Your task to perform on an android device: toggle notifications settings in the gmail app Image 0: 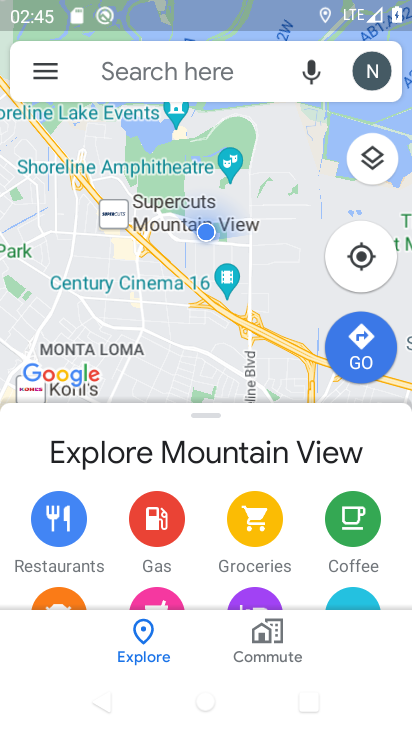
Step 0: press home button
Your task to perform on an android device: toggle notifications settings in the gmail app Image 1: 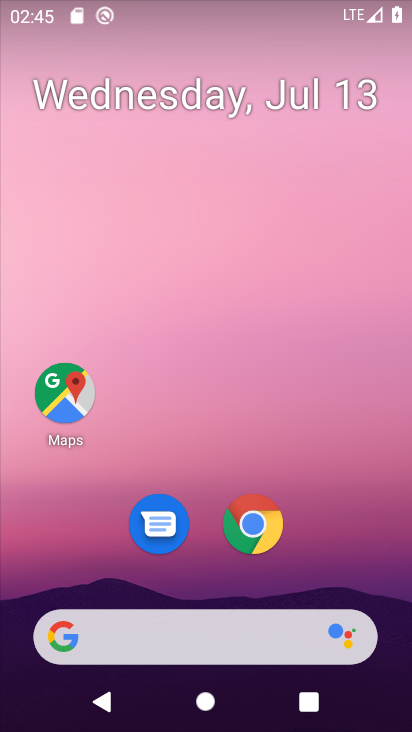
Step 1: drag from (352, 545) to (409, 111)
Your task to perform on an android device: toggle notifications settings in the gmail app Image 2: 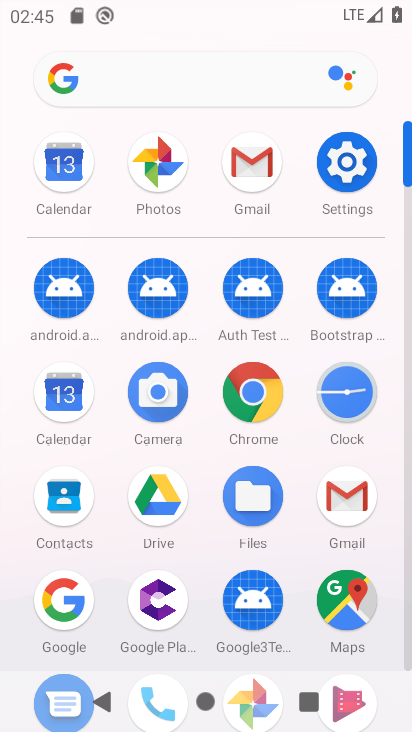
Step 2: click (253, 164)
Your task to perform on an android device: toggle notifications settings in the gmail app Image 3: 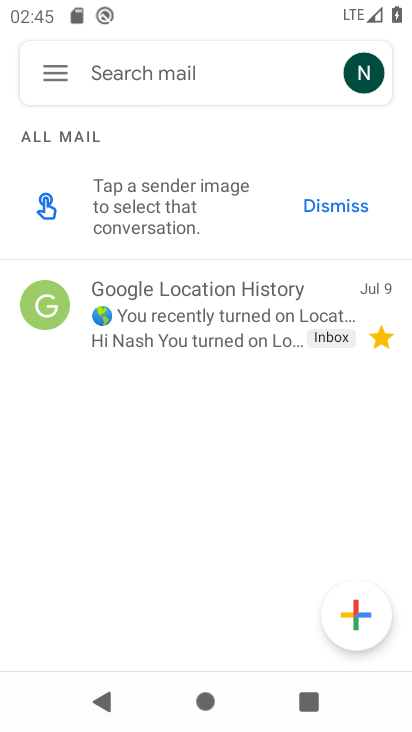
Step 3: click (59, 80)
Your task to perform on an android device: toggle notifications settings in the gmail app Image 4: 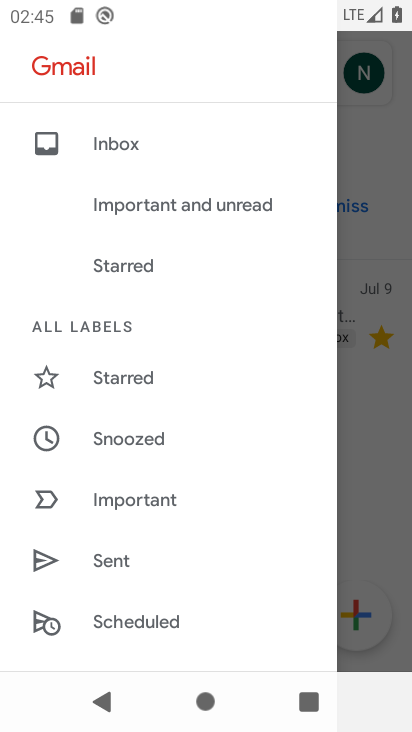
Step 4: drag from (163, 515) to (217, 0)
Your task to perform on an android device: toggle notifications settings in the gmail app Image 5: 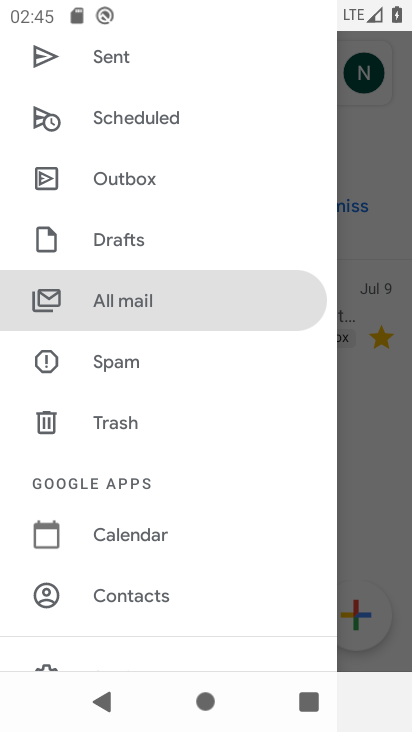
Step 5: drag from (194, 523) to (212, 245)
Your task to perform on an android device: toggle notifications settings in the gmail app Image 6: 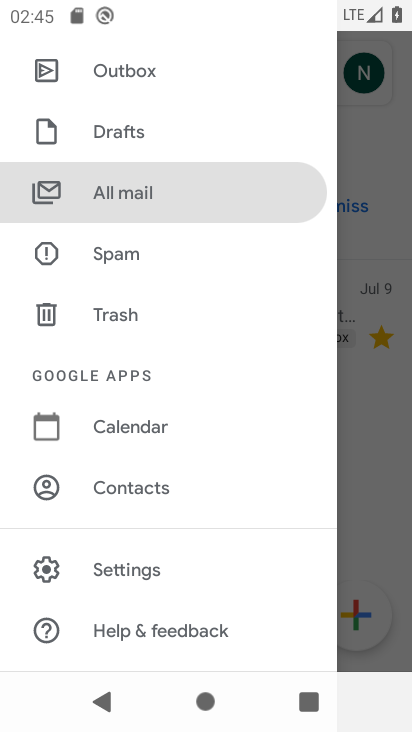
Step 6: click (147, 558)
Your task to perform on an android device: toggle notifications settings in the gmail app Image 7: 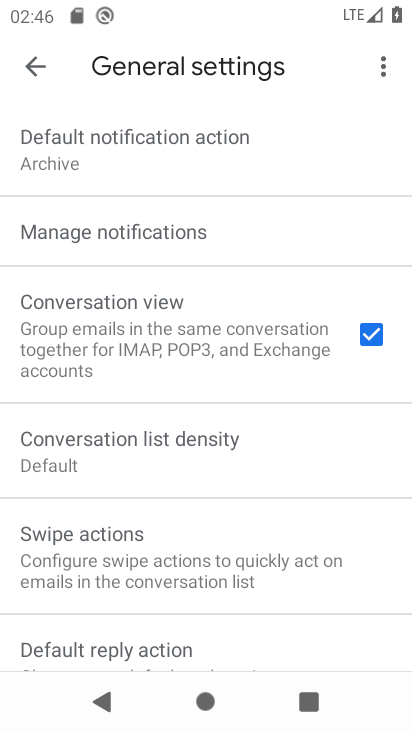
Step 7: drag from (210, 454) to (234, 242)
Your task to perform on an android device: toggle notifications settings in the gmail app Image 8: 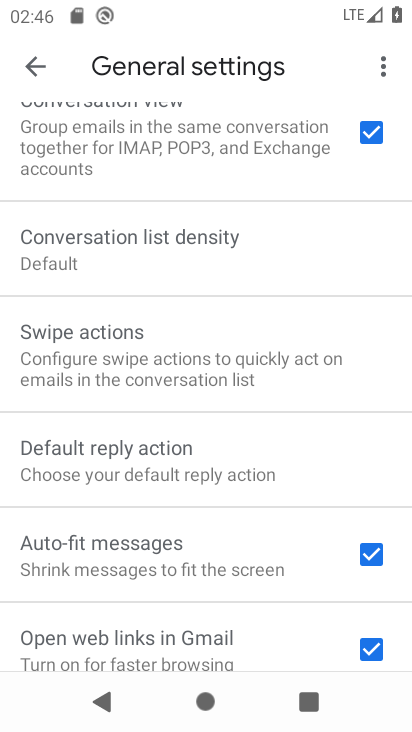
Step 8: drag from (234, 248) to (242, 572)
Your task to perform on an android device: toggle notifications settings in the gmail app Image 9: 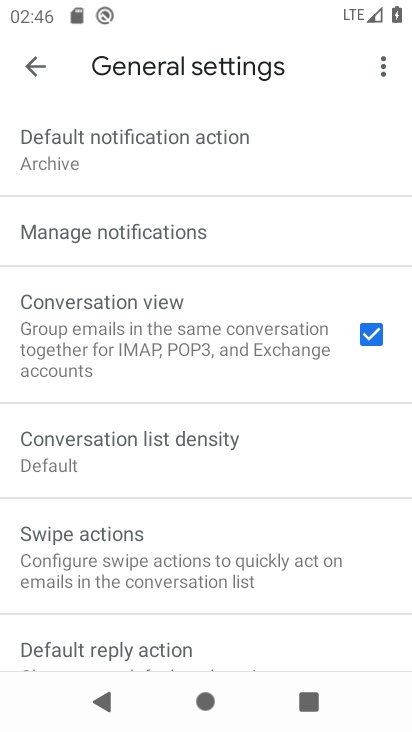
Step 9: click (234, 237)
Your task to perform on an android device: toggle notifications settings in the gmail app Image 10: 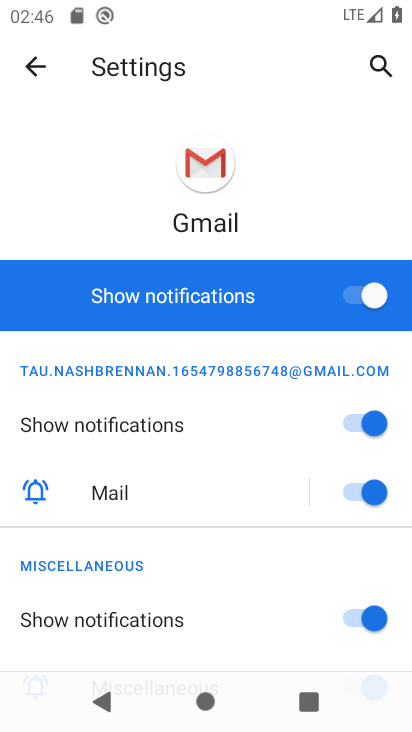
Step 10: click (352, 299)
Your task to perform on an android device: toggle notifications settings in the gmail app Image 11: 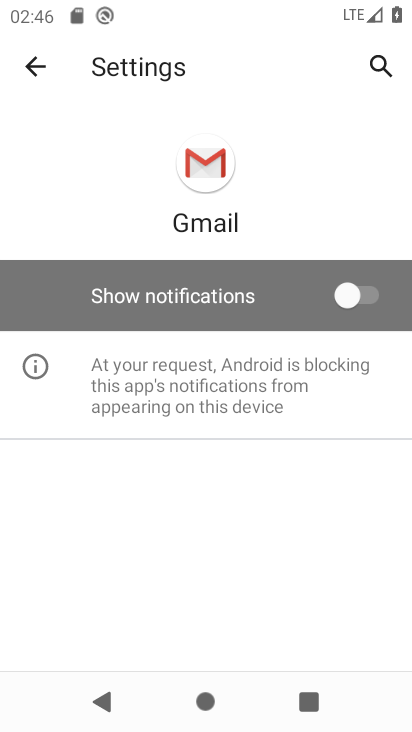
Step 11: task complete